Your task to perform on an android device: turn off location history Image 0: 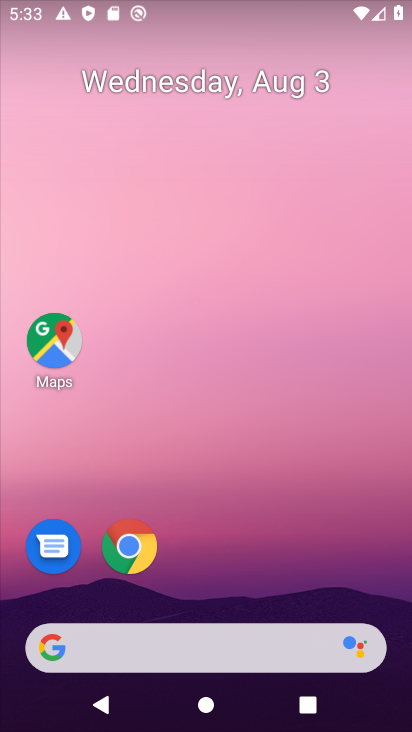
Step 0: press home button
Your task to perform on an android device: turn off location history Image 1: 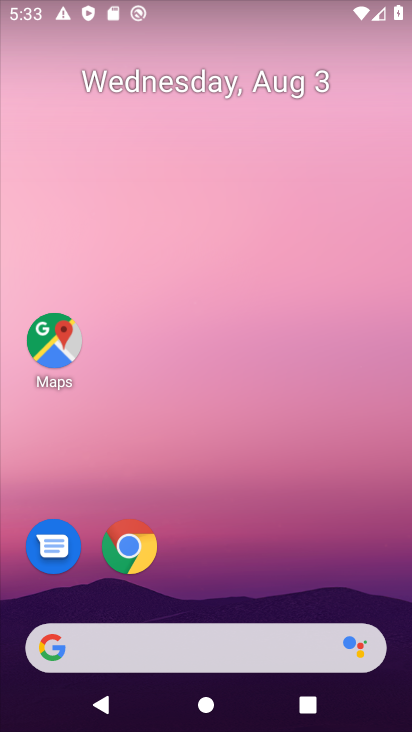
Step 1: drag from (228, 606) to (135, 185)
Your task to perform on an android device: turn off location history Image 2: 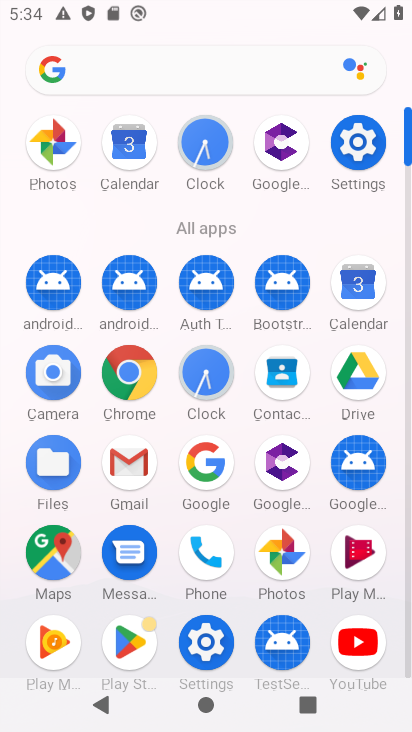
Step 2: click (343, 157)
Your task to perform on an android device: turn off location history Image 3: 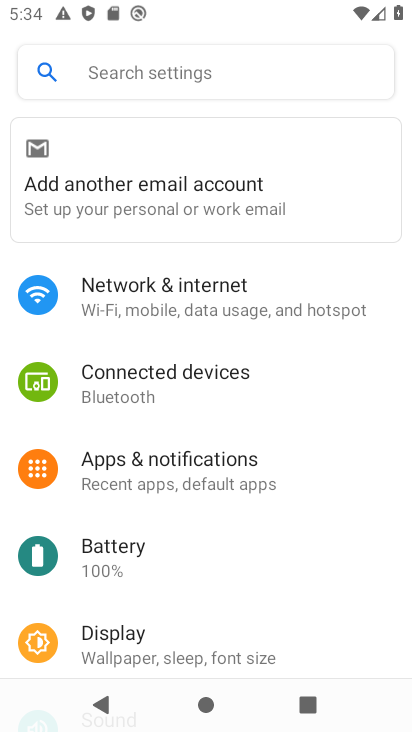
Step 3: drag from (241, 578) to (199, 251)
Your task to perform on an android device: turn off location history Image 4: 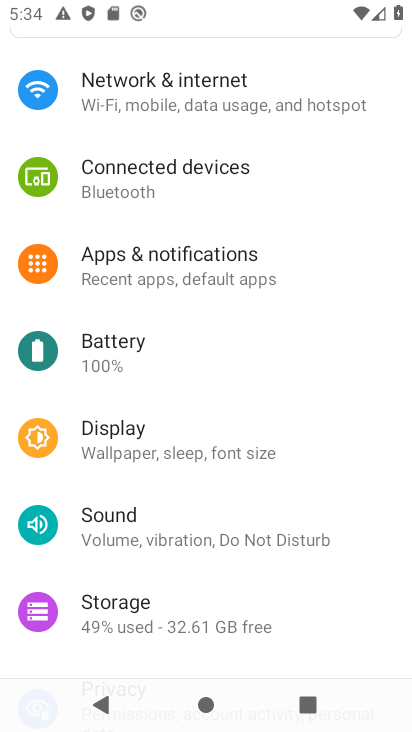
Step 4: drag from (339, 564) to (274, 219)
Your task to perform on an android device: turn off location history Image 5: 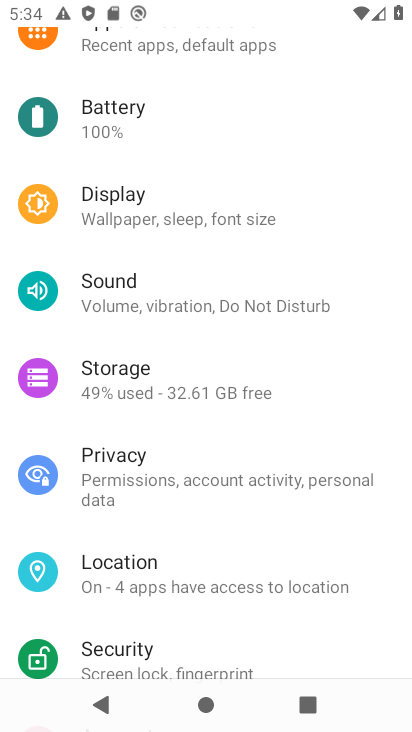
Step 5: click (128, 566)
Your task to perform on an android device: turn off location history Image 6: 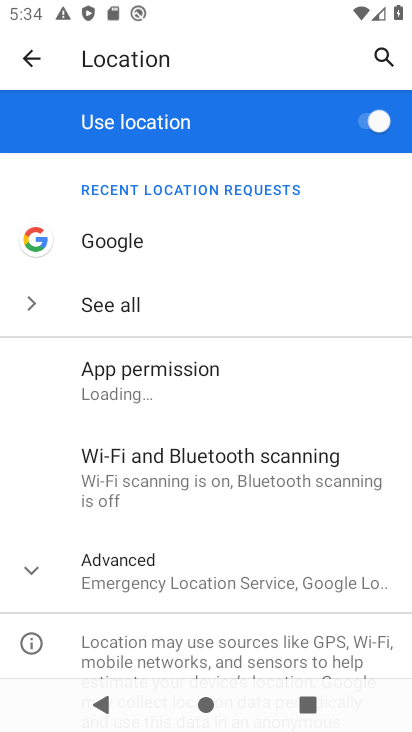
Step 6: click (120, 577)
Your task to perform on an android device: turn off location history Image 7: 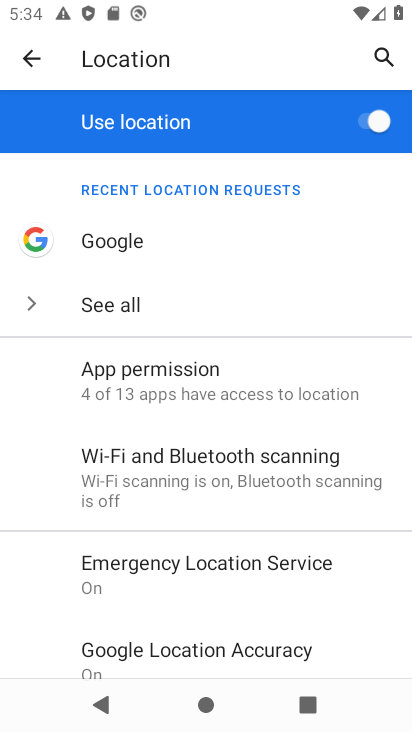
Step 7: drag from (283, 534) to (261, 226)
Your task to perform on an android device: turn off location history Image 8: 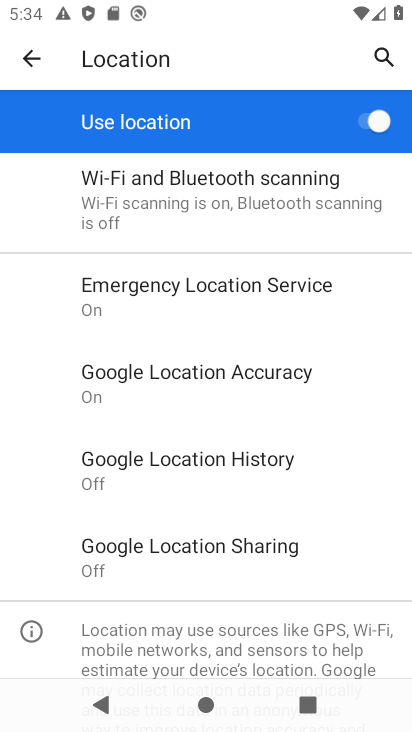
Step 8: click (219, 458)
Your task to perform on an android device: turn off location history Image 9: 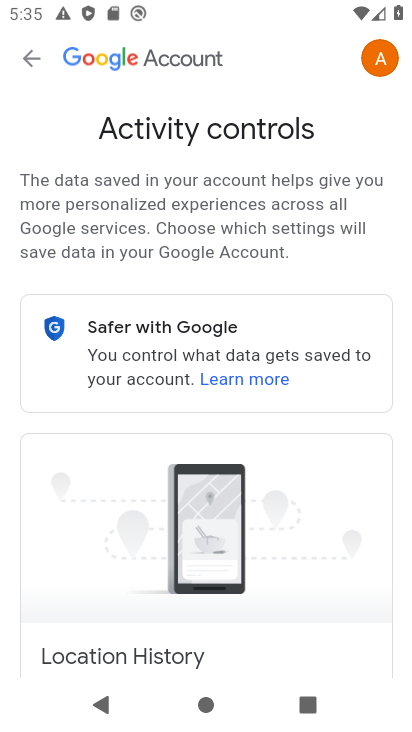
Step 9: task complete